Your task to perform on an android device: Do I have any events today? Image 0: 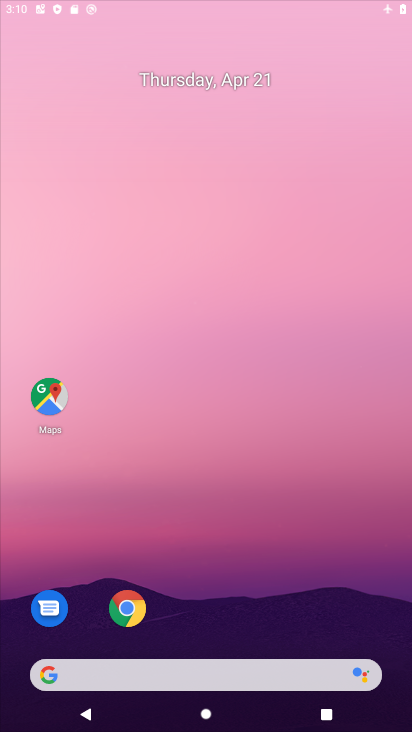
Step 0: click (210, 189)
Your task to perform on an android device: Do I have any events today? Image 1: 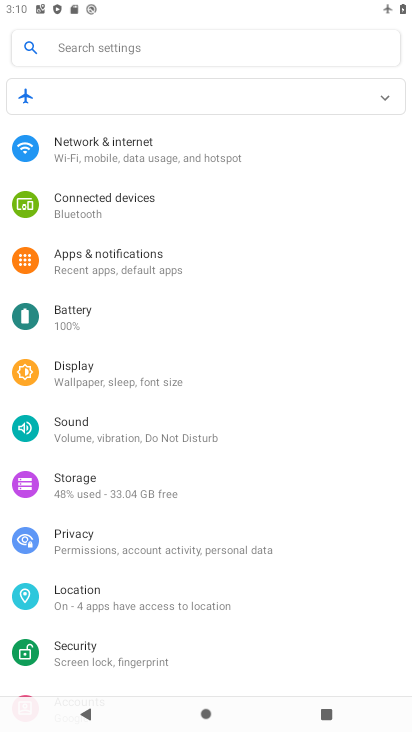
Step 1: press back button
Your task to perform on an android device: Do I have any events today? Image 2: 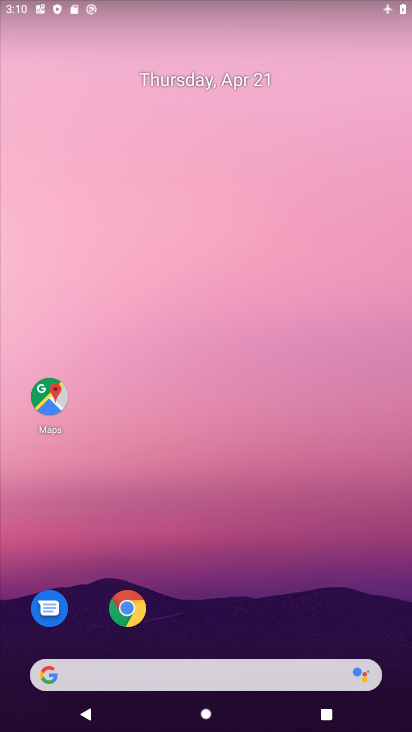
Step 2: drag from (234, 386) to (211, 105)
Your task to perform on an android device: Do I have any events today? Image 3: 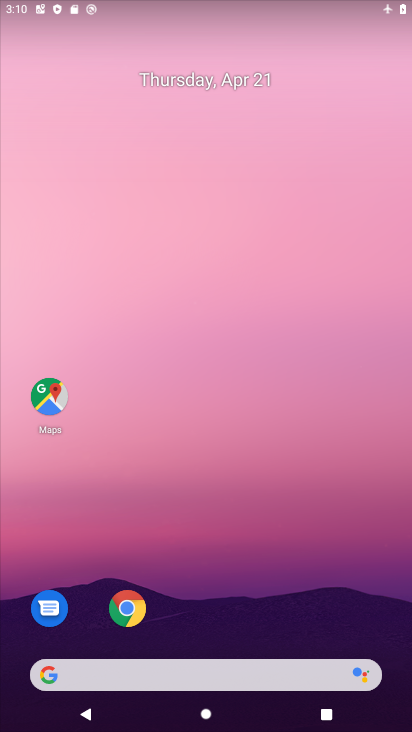
Step 3: drag from (215, 316) to (203, 14)
Your task to perform on an android device: Do I have any events today? Image 4: 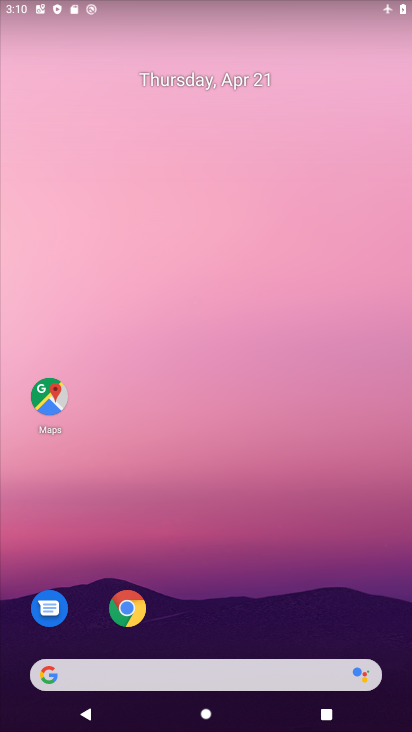
Step 4: drag from (192, 599) to (217, 7)
Your task to perform on an android device: Do I have any events today? Image 5: 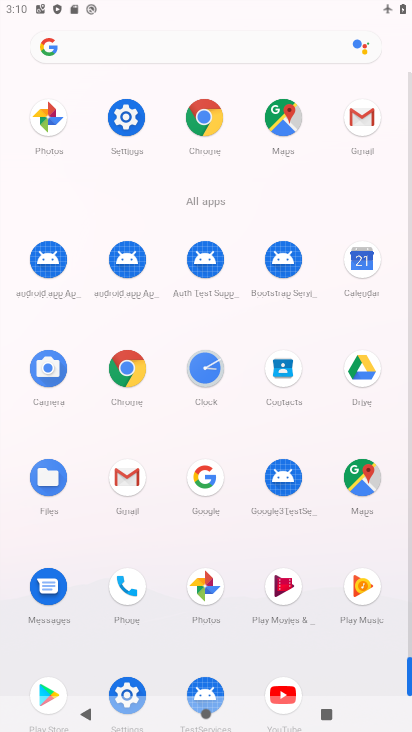
Step 5: click (345, 269)
Your task to perform on an android device: Do I have any events today? Image 6: 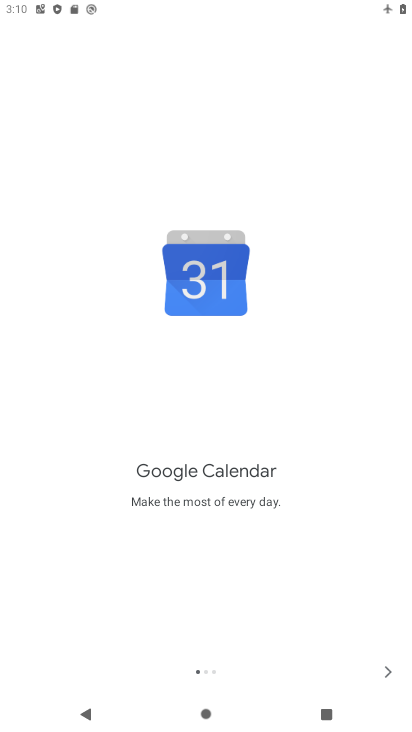
Step 6: click (380, 676)
Your task to perform on an android device: Do I have any events today? Image 7: 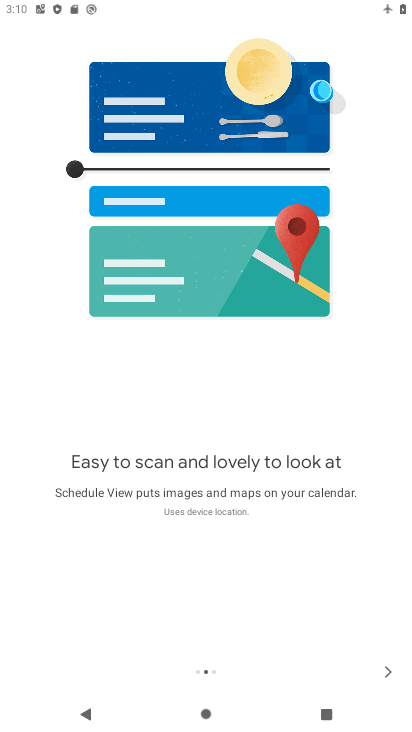
Step 7: click (381, 672)
Your task to perform on an android device: Do I have any events today? Image 8: 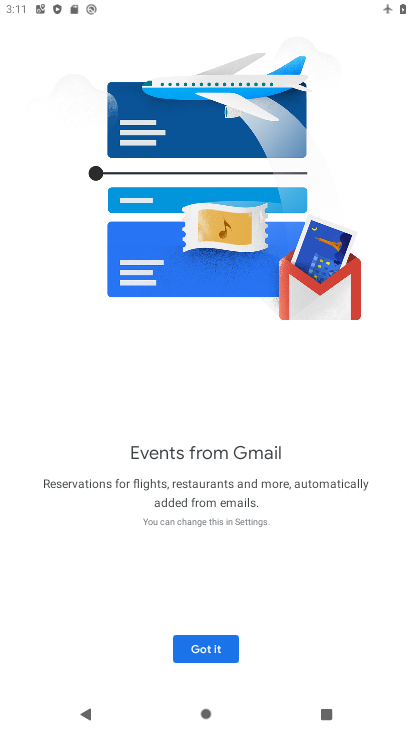
Step 8: click (196, 643)
Your task to perform on an android device: Do I have any events today? Image 9: 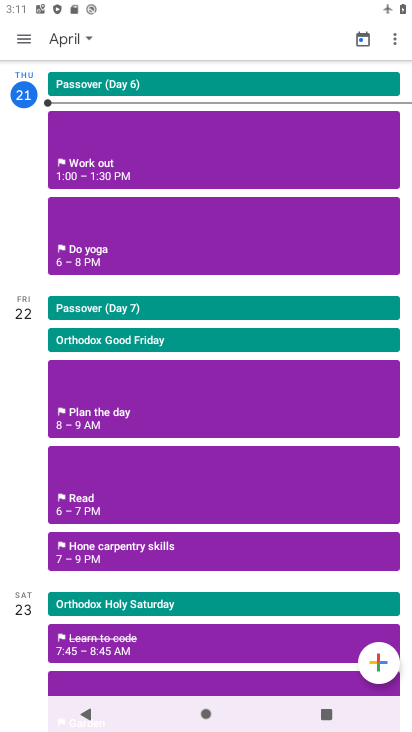
Step 9: task complete